Your task to perform on an android device: star an email in the gmail app Image 0: 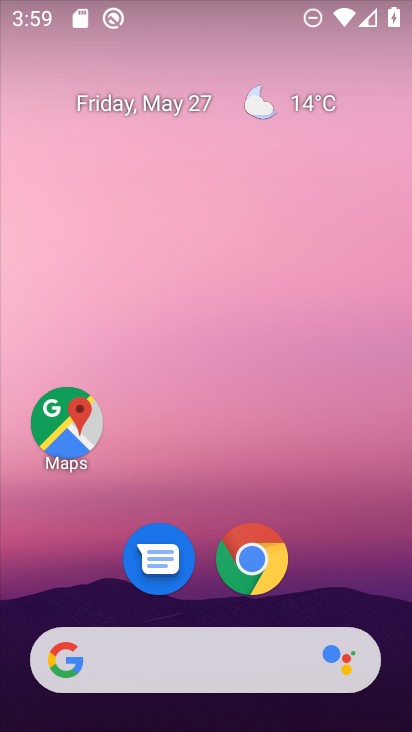
Step 0: drag from (260, 642) to (289, 0)
Your task to perform on an android device: star an email in the gmail app Image 1: 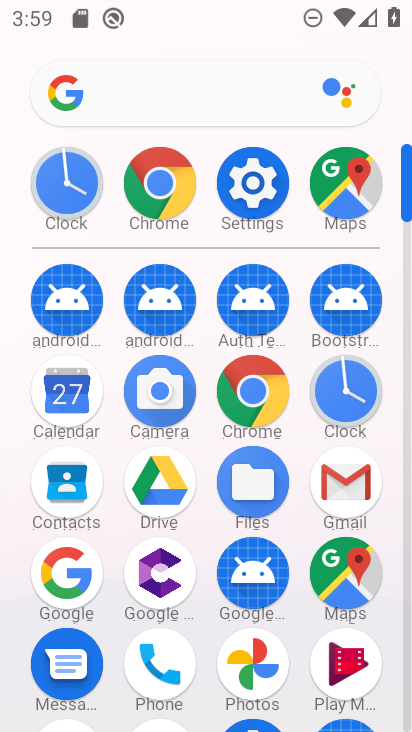
Step 1: click (329, 493)
Your task to perform on an android device: star an email in the gmail app Image 2: 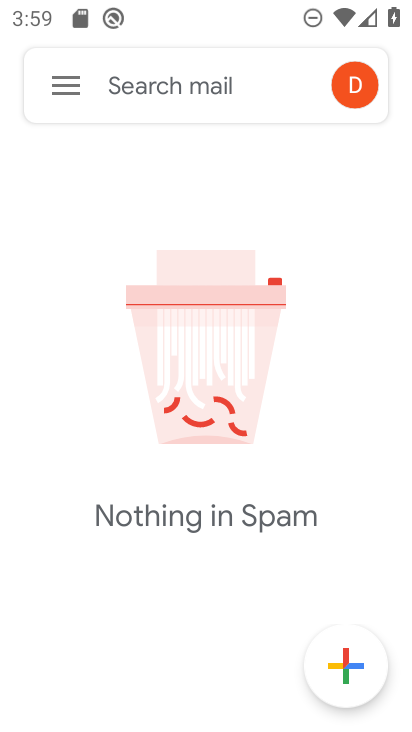
Step 2: click (59, 75)
Your task to perform on an android device: star an email in the gmail app Image 3: 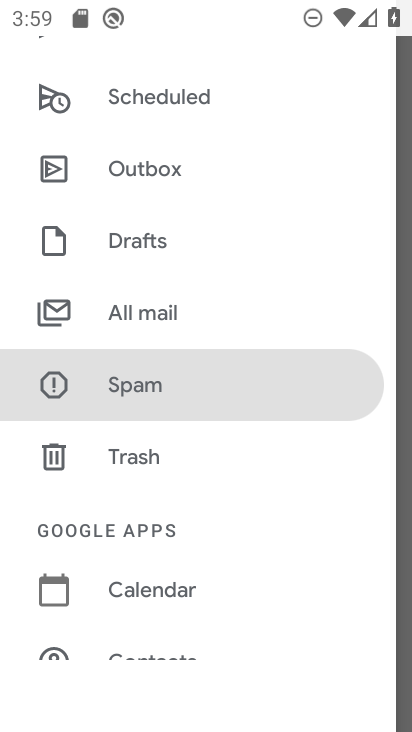
Step 3: drag from (151, 155) to (203, 727)
Your task to perform on an android device: star an email in the gmail app Image 4: 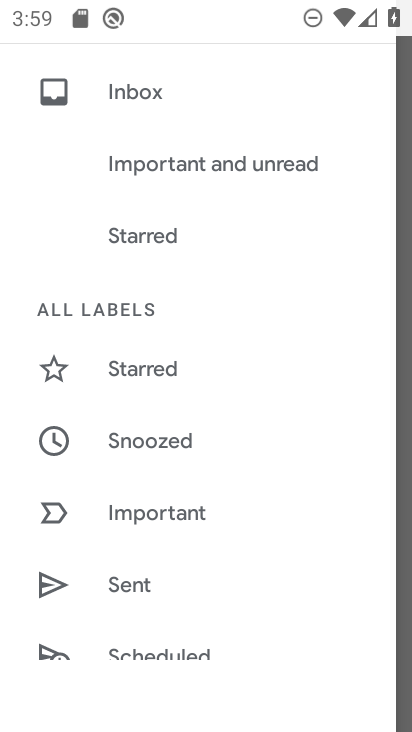
Step 4: click (187, 360)
Your task to perform on an android device: star an email in the gmail app Image 5: 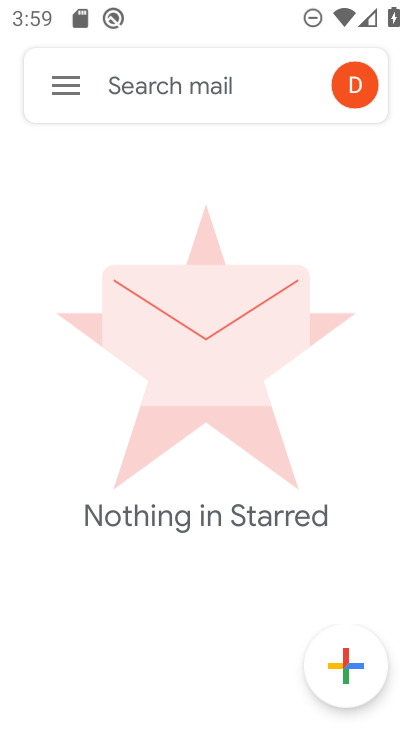
Step 5: task complete